Your task to perform on an android device: Where can I buy a nice beach blanket? Image 0: 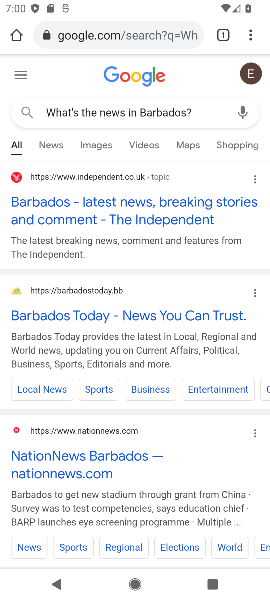
Step 0: click (146, 28)
Your task to perform on an android device: Where can I buy a nice beach blanket? Image 1: 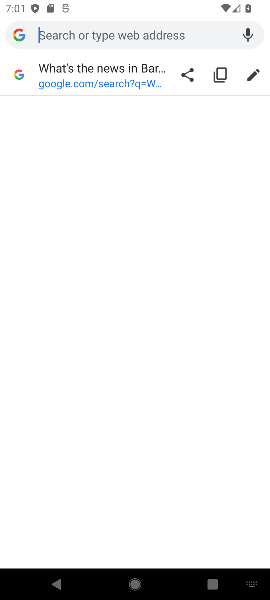
Step 1: type "Where can I buy a nice beach blanket?"
Your task to perform on an android device: Where can I buy a nice beach blanket? Image 2: 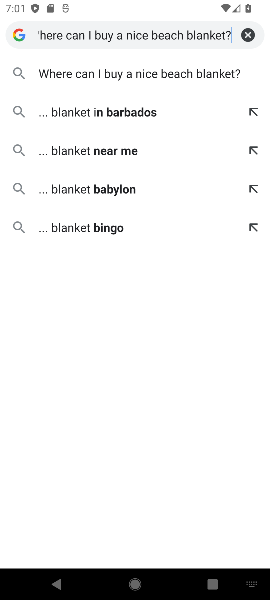
Step 2: click (139, 65)
Your task to perform on an android device: Where can I buy a nice beach blanket? Image 3: 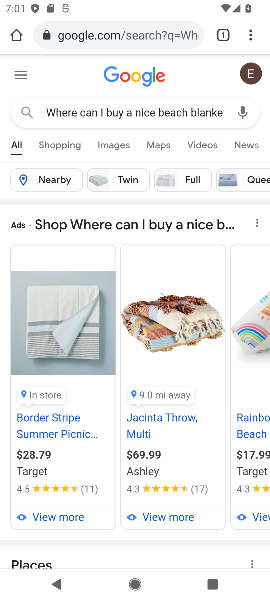
Step 3: task complete